Your task to perform on an android device: turn vacation reply on in the gmail app Image 0: 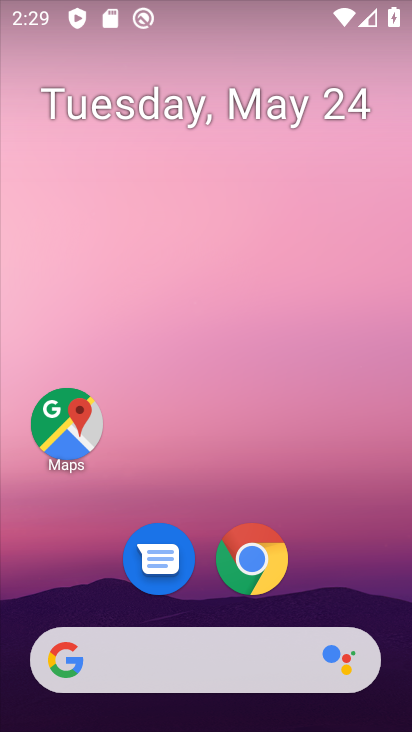
Step 0: drag from (172, 677) to (198, 195)
Your task to perform on an android device: turn vacation reply on in the gmail app Image 1: 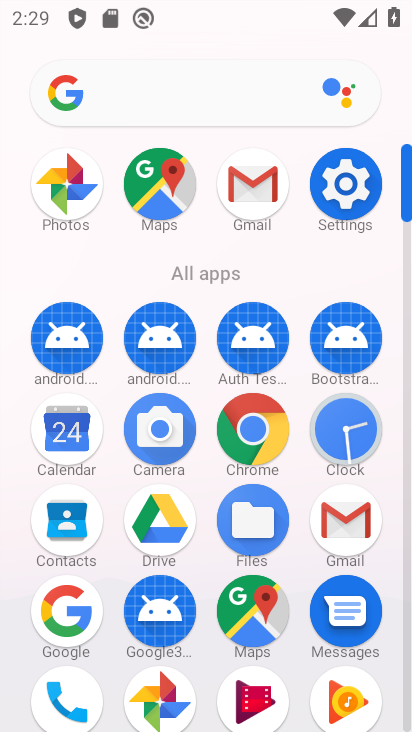
Step 1: click (241, 194)
Your task to perform on an android device: turn vacation reply on in the gmail app Image 2: 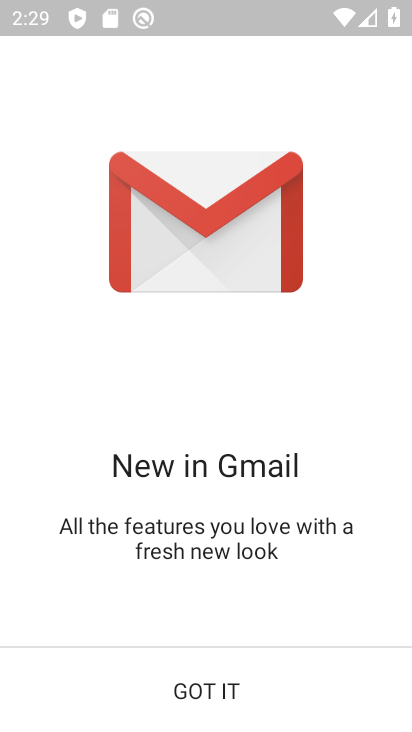
Step 2: click (227, 669)
Your task to perform on an android device: turn vacation reply on in the gmail app Image 3: 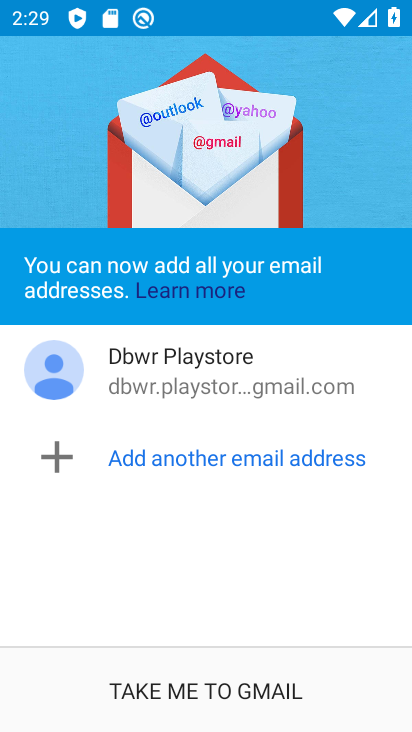
Step 3: click (168, 691)
Your task to perform on an android device: turn vacation reply on in the gmail app Image 4: 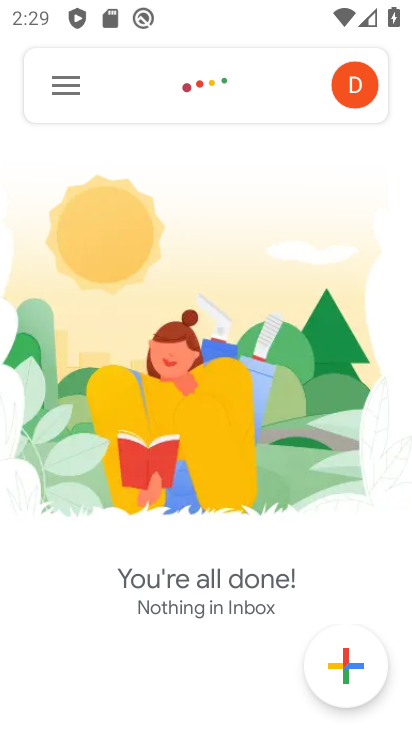
Step 4: click (62, 91)
Your task to perform on an android device: turn vacation reply on in the gmail app Image 5: 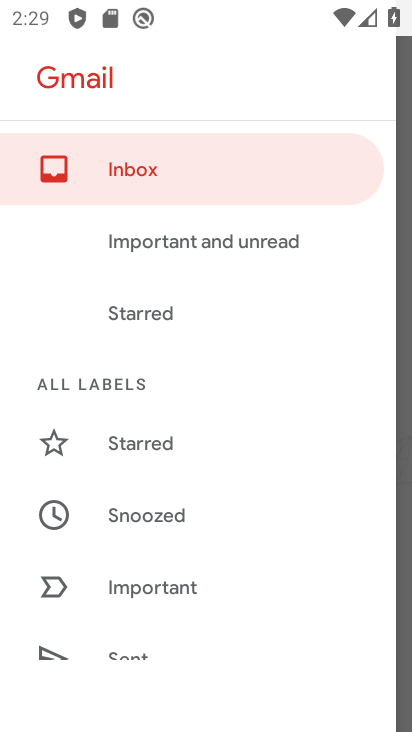
Step 5: drag from (175, 575) to (176, 213)
Your task to perform on an android device: turn vacation reply on in the gmail app Image 6: 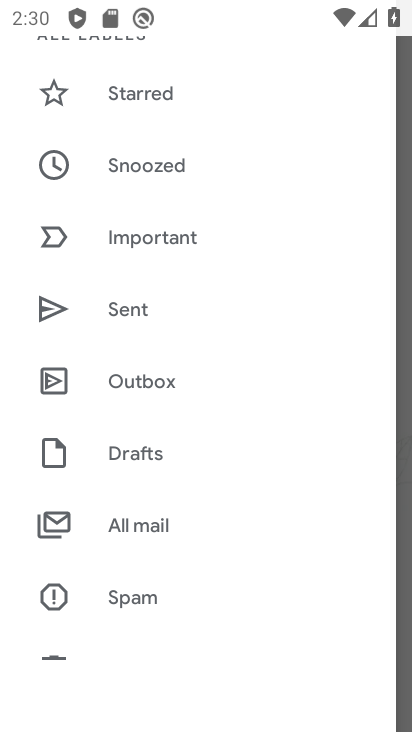
Step 6: drag from (151, 569) to (178, 267)
Your task to perform on an android device: turn vacation reply on in the gmail app Image 7: 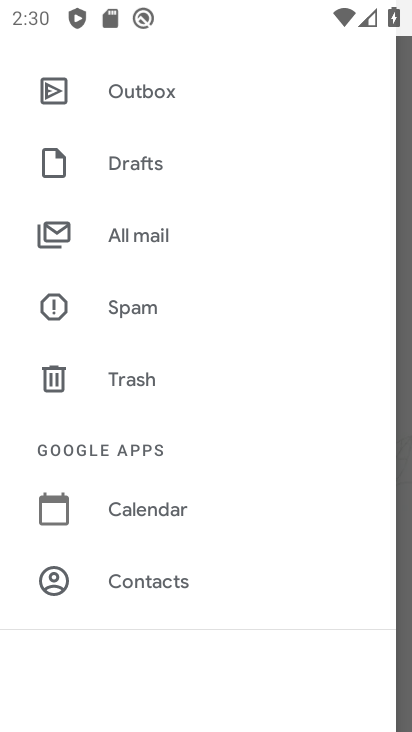
Step 7: drag from (216, 544) to (231, 129)
Your task to perform on an android device: turn vacation reply on in the gmail app Image 8: 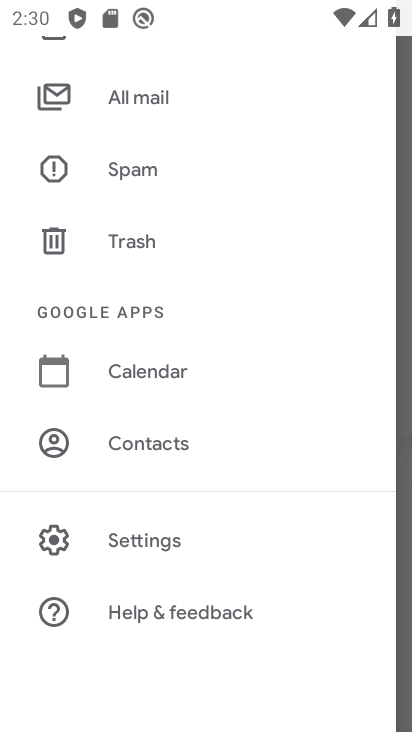
Step 8: click (143, 546)
Your task to perform on an android device: turn vacation reply on in the gmail app Image 9: 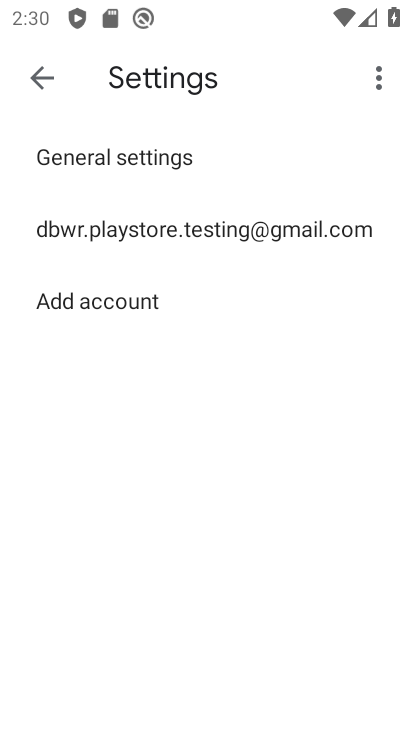
Step 9: click (151, 242)
Your task to perform on an android device: turn vacation reply on in the gmail app Image 10: 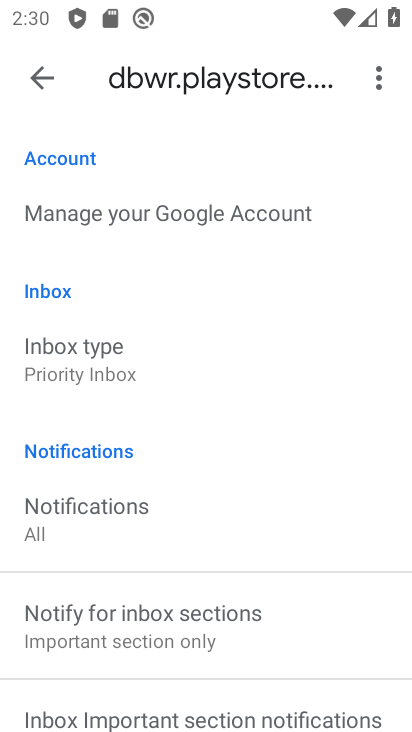
Step 10: drag from (147, 638) to (172, 81)
Your task to perform on an android device: turn vacation reply on in the gmail app Image 11: 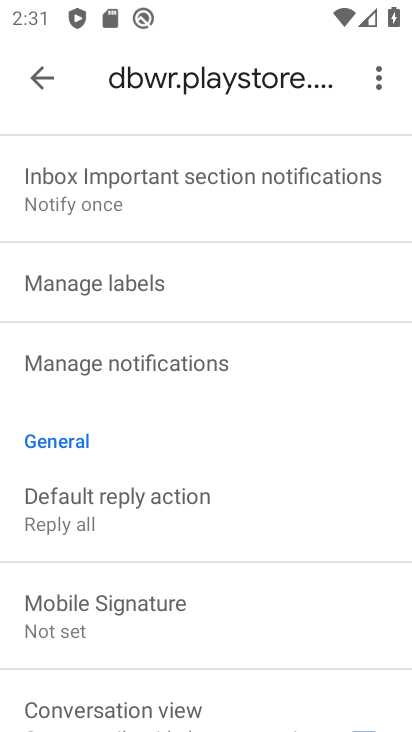
Step 11: drag from (170, 565) to (178, 94)
Your task to perform on an android device: turn vacation reply on in the gmail app Image 12: 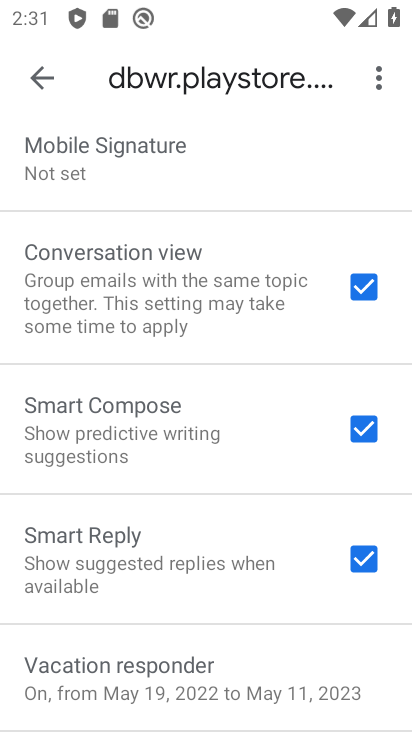
Step 12: click (217, 674)
Your task to perform on an android device: turn vacation reply on in the gmail app Image 13: 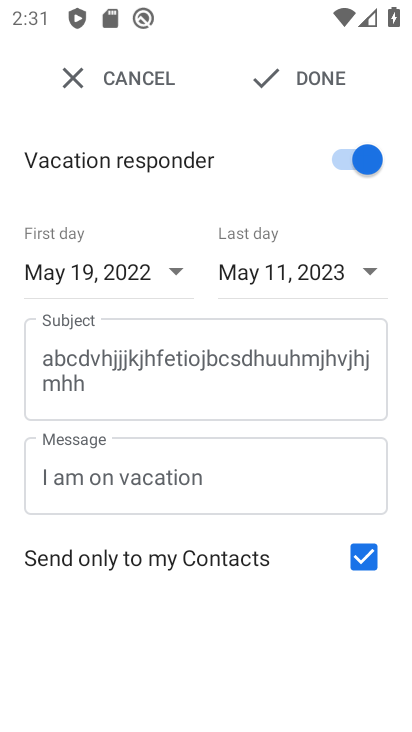
Step 13: click (280, 81)
Your task to perform on an android device: turn vacation reply on in the gmail app Image 14: 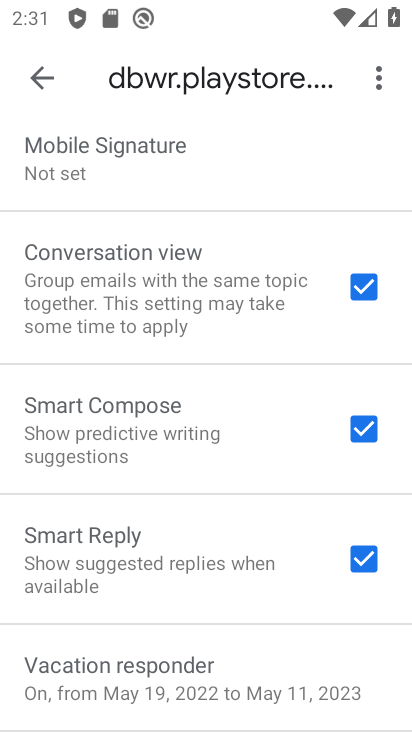
Step 14: task complete